Your task to perform on an android device: Go to calendar. Show me events next week Image 0: 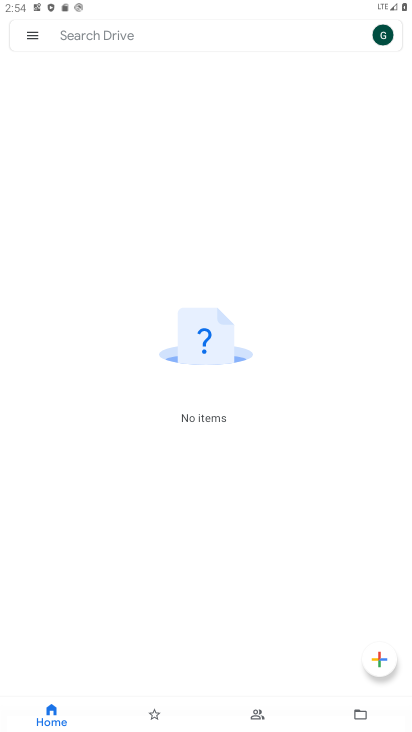
Step 0: press home button
Your task to perform on an android device: Go to calendar. Show me events next week Image 1: 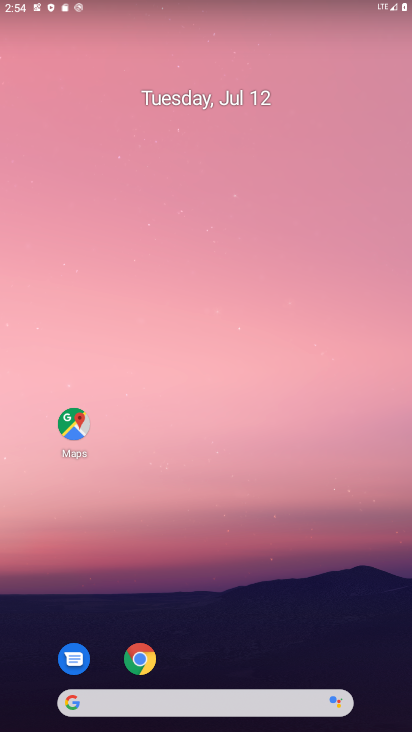
Step 1: drag from (221, 723) to (219, 117)
Your task to perform on an android device: Go to calendar. Show me events next week Image 2: 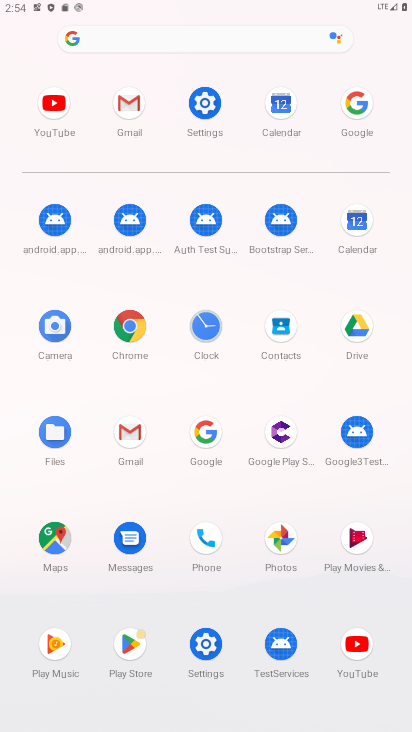
Step 2: click (353, 218)
Your task to perform on an android device: Go to calendar. Show me events next week Image 3: 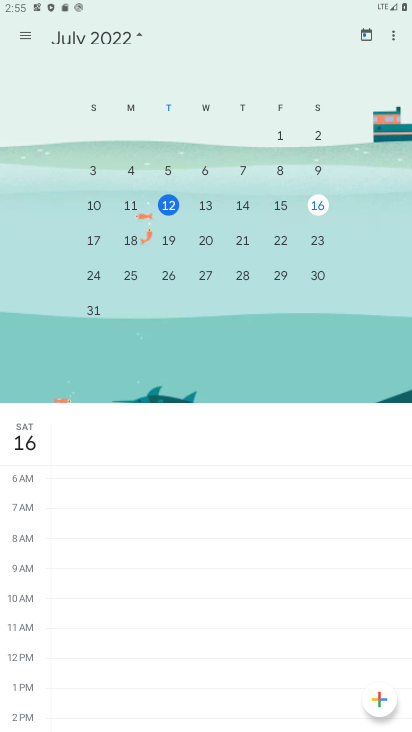
Step 3: click (131, 237)
Your task to perform on an android device: Go to calendar. Show me events next week Image 4: 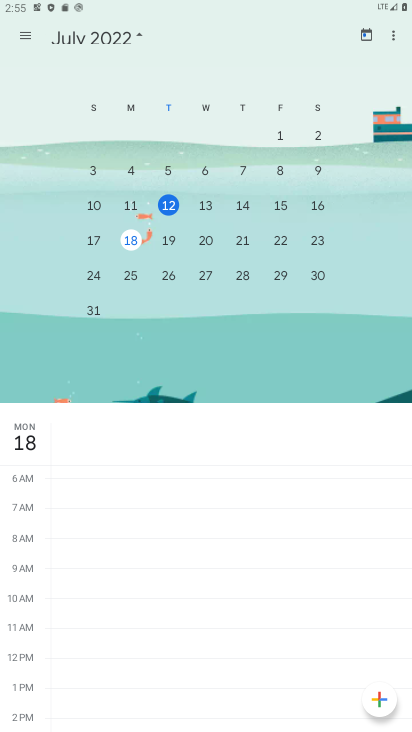
Step 4: click (131, 238)
Your task to perform on an android device: Go to calendar. Show me events next week Image 5: 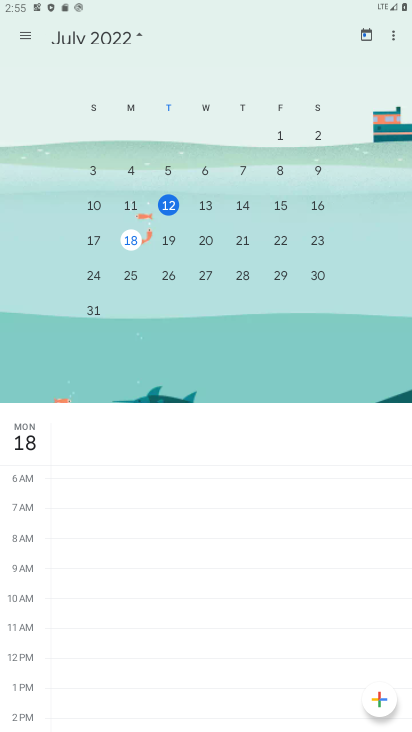
Step 5: click (27, 31)
Your task to perform on an android device: Go to calendar. Show me events next week Image 6: 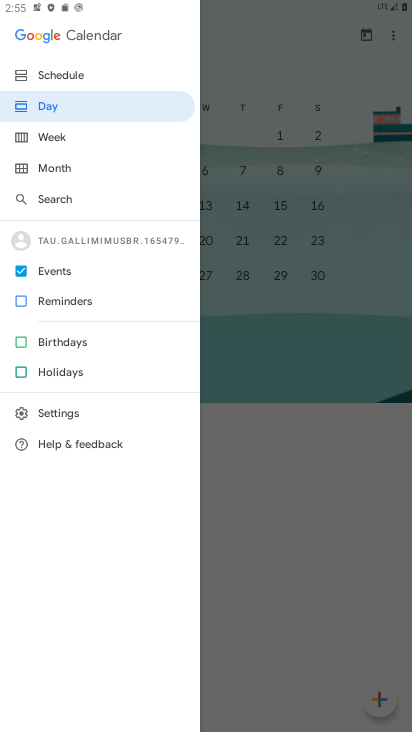
Step 6: click (51, 132)
Your task to perform on an android device: Go to calendar. Show me events next week Image 7: 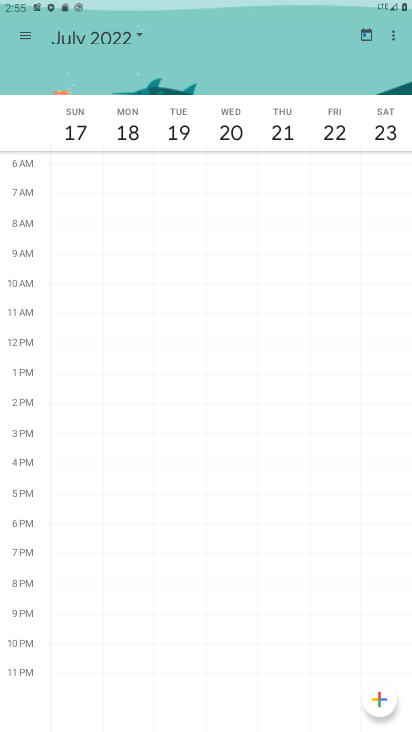
Step 7: task complete